Your task to perform on an android device: Toggle the flashlight Image 0: 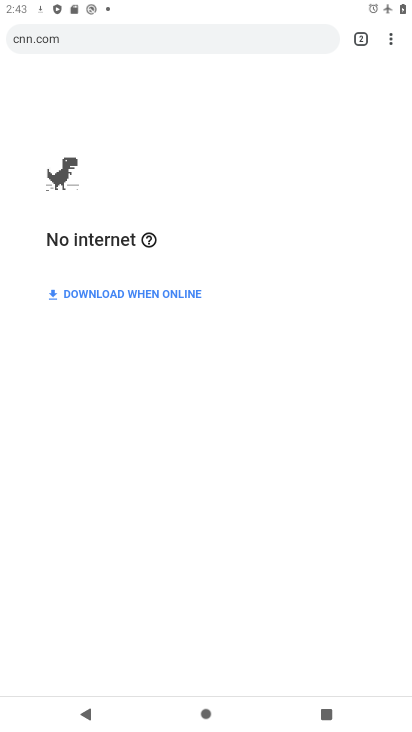
Step 0: press home button
Your task to perform on an android device: Toggle the flashlight Image 1: 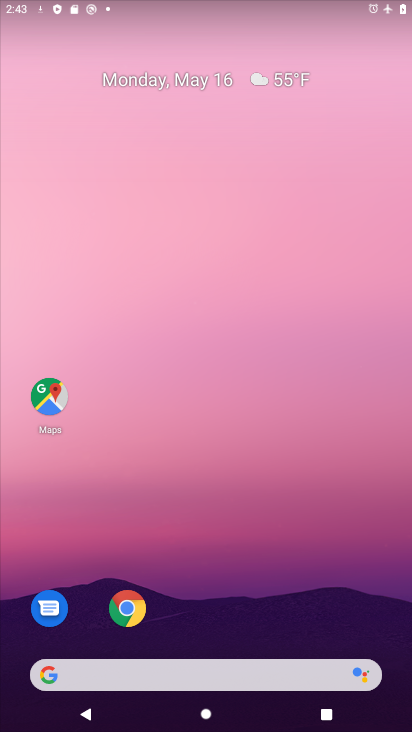
Step 1: press home button
Your task to perform on an android device: Toggle the flashlight Image 2: 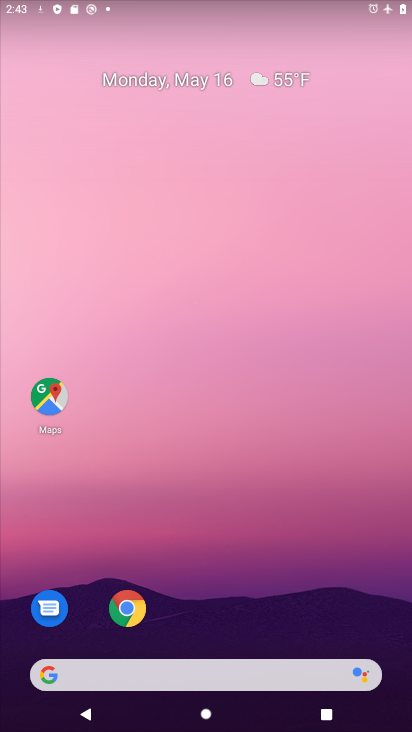
Step 2: drag from (195, 612) to (208, 197)
Your task to perform on an android device: Toggle the flashlight Image 3: 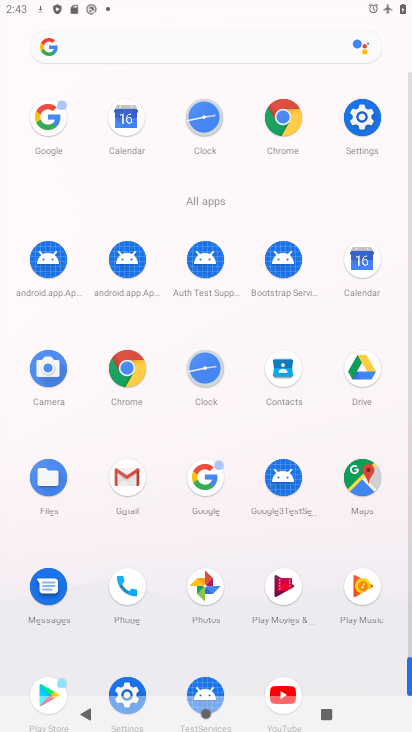
Step 3: click (364, 128)
Your task to perform on an android device: Toggle the flashlight Image 4: 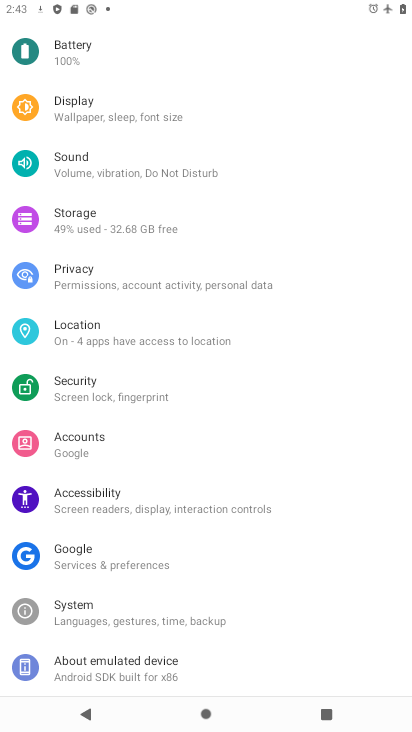
Step 4: task complete